Your task to perform on an android device: star an email in the gmail app Image 0: 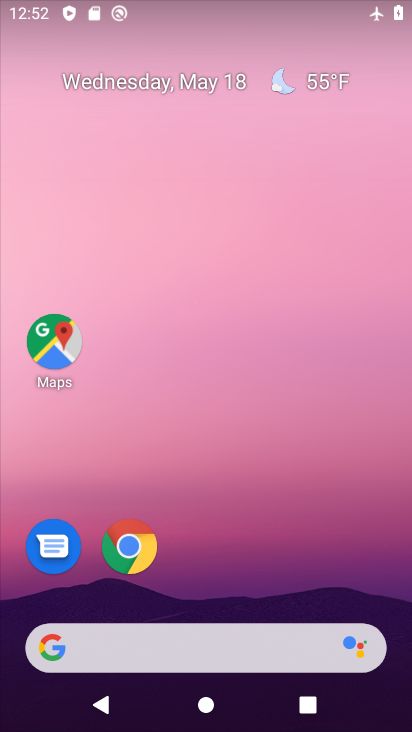
Step 0: drag from (315, 578) to (324, 151)
Your task to perform on an android device: star an email in the gmail app Image 1: 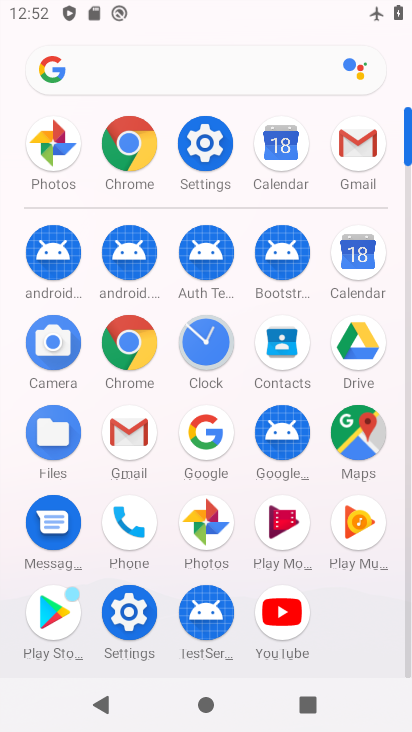
Step 1: click (112, 446)
Your task to perform on an android device: star an email in the gmail app Image 2: 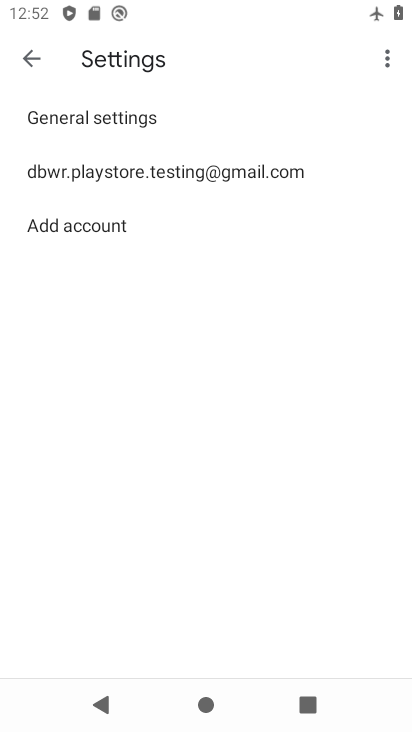
Step 2: click (118, 169)
Your task to perform on an android device: star an email in the gmail app Image 3: 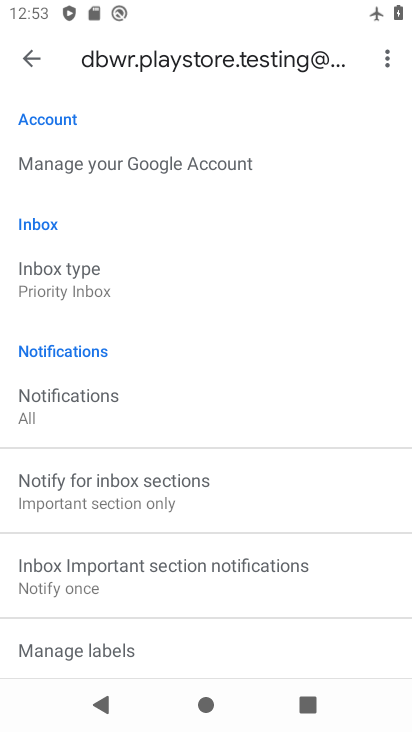
Step 3: click (25, 62)
Your task to perform on an android device: star an email in the gmail app Image 4: 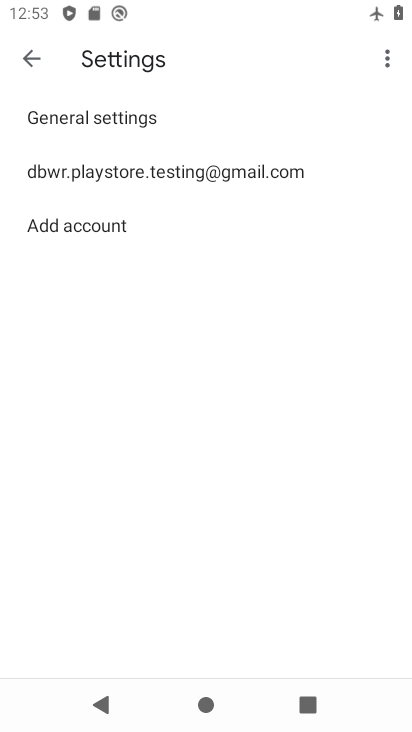
Step 4: click (28, 45)
Your task to perform on an android device: star an email in the gmail app Image 5: 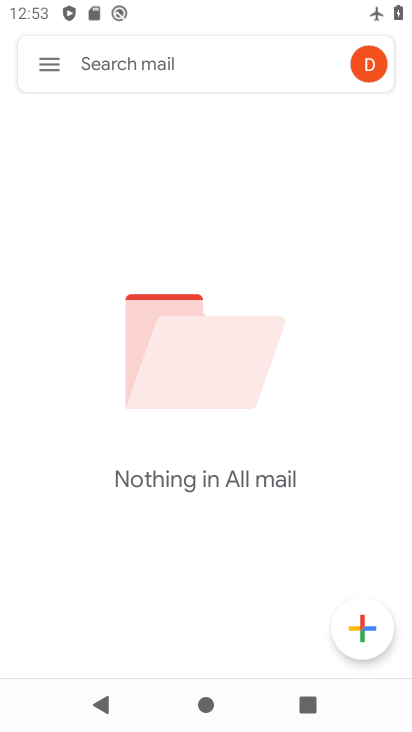
Step 5: click (51, 67)
Your task to perform on an android device: star an email in the gmail app Image 6: 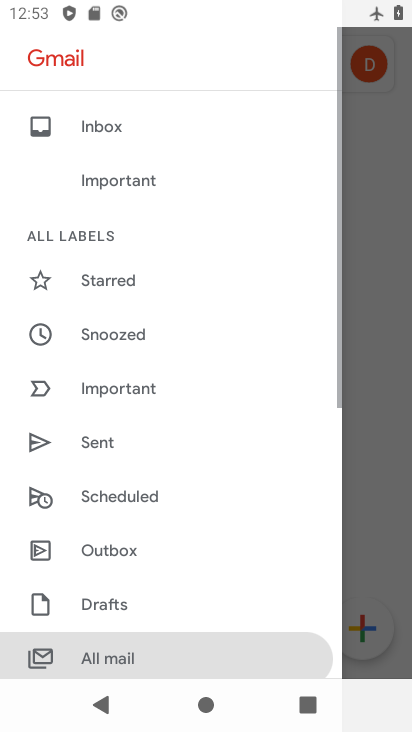
Step 6: drag from (168, 532) to (206, 250)
Your task to perform on an android device: star an email in the gmail app Image 7: 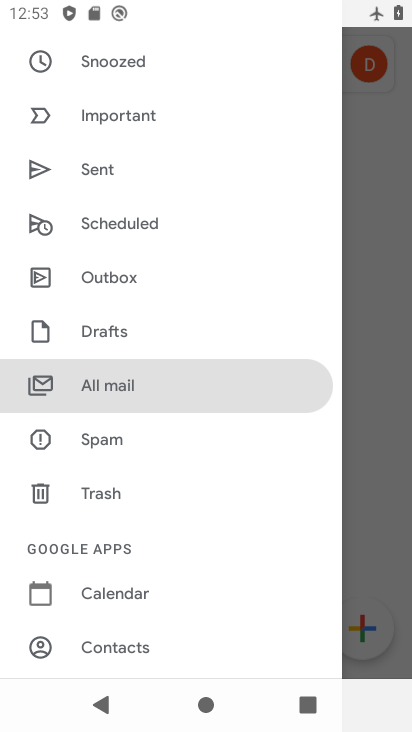
Step 7: drag from (165, 584) to (224, 268)
Your task to perform on an android device: star an email in the gmail app Image 8: 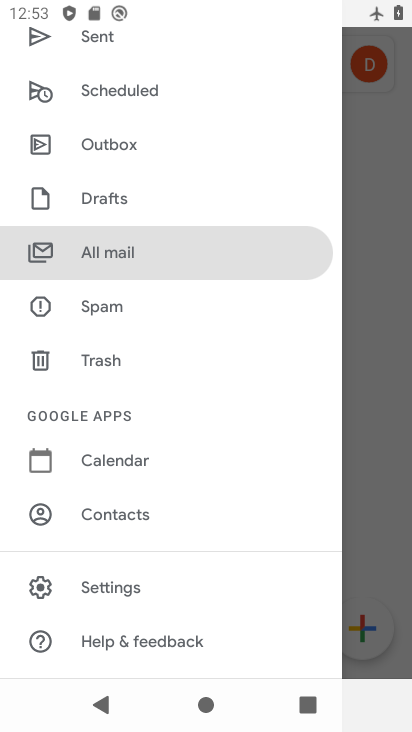
Step 8: drag from (169, 157) to (161, 477)
Your task to perform on an android device: star an email in the gmail app Image 9: 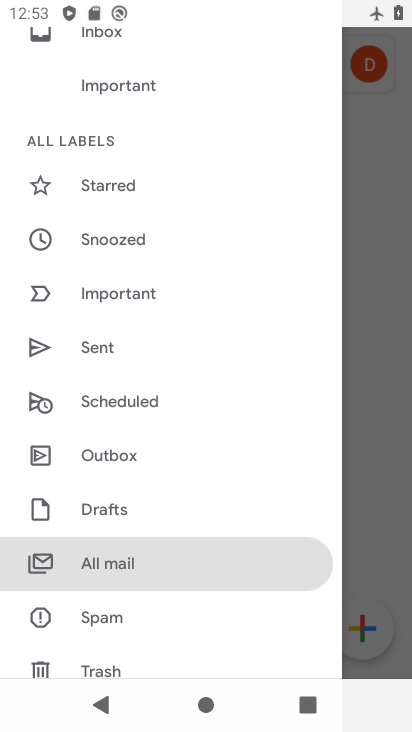
Step 9: click (148, 191)
Your task to perform on an android device: star an email in the gmail app Image 10: 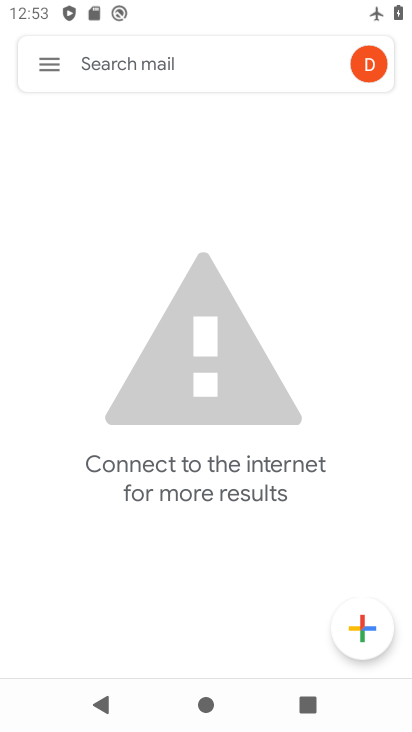
Step 10: task complete